Your task to perform on an android device: Is it going to rain tomorrow? Image 0: 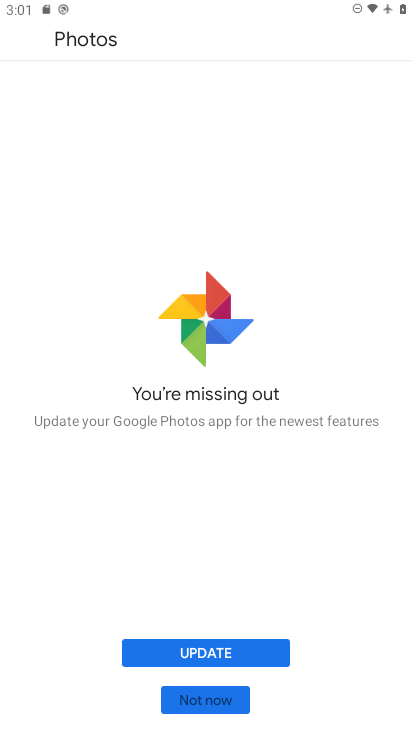
Step 0: press home button
Your task to perform on an android device: Is it going to rain tomorrow? Image 1: 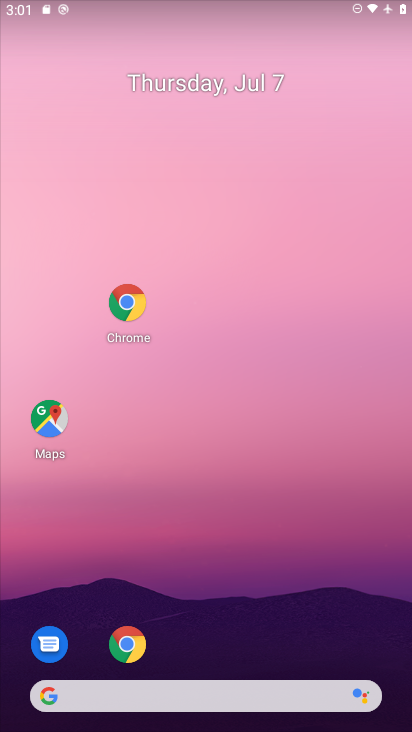
Step 1: drag from (277, 520) to (289, 3)
Your task to perform on an android device: Is it going to rain tomorrow? Image 2: 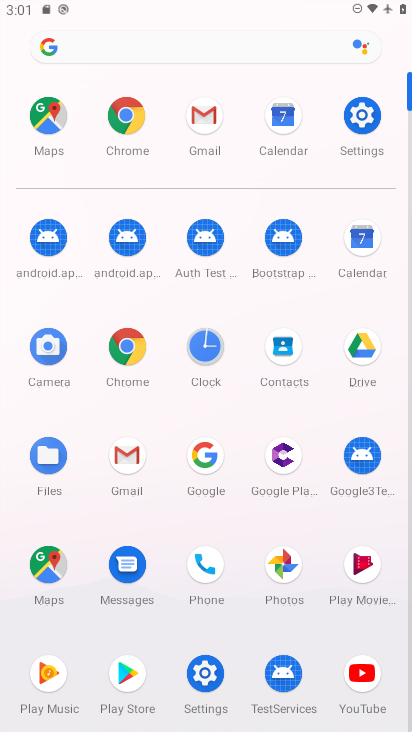
Step 2: click (125, 356)
Your task to perform on an android device: Is it going to rain tomorrow? Image 3: 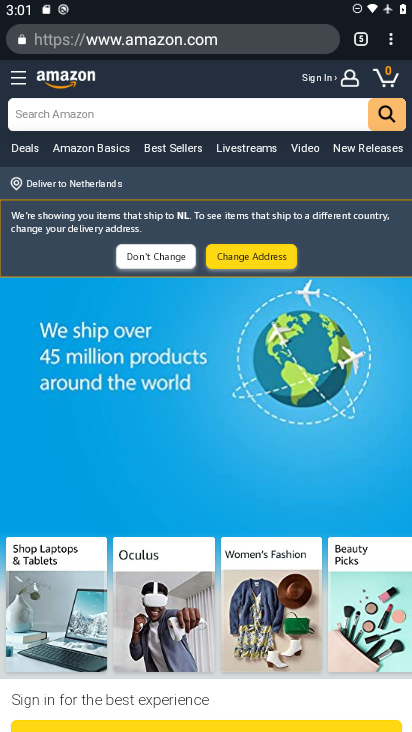
Step 3: click (363, 41)
Your task to perform on an android device: Is it going to rain tomorrow? Image 4: 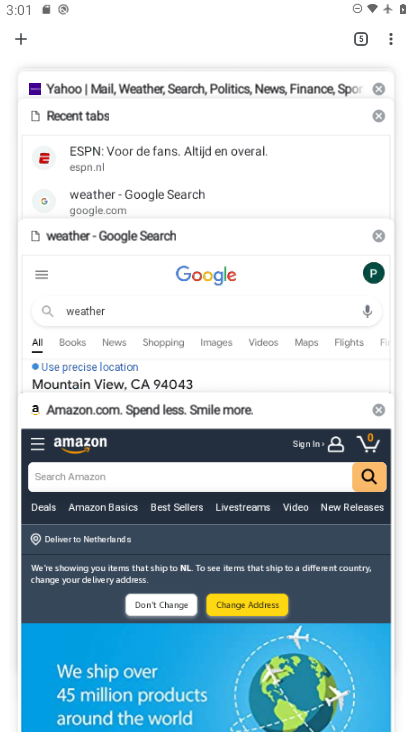
Step 4: click (25, 45)
Your task to perform on an android device: Is it going to rain tomorrow? Image 5: 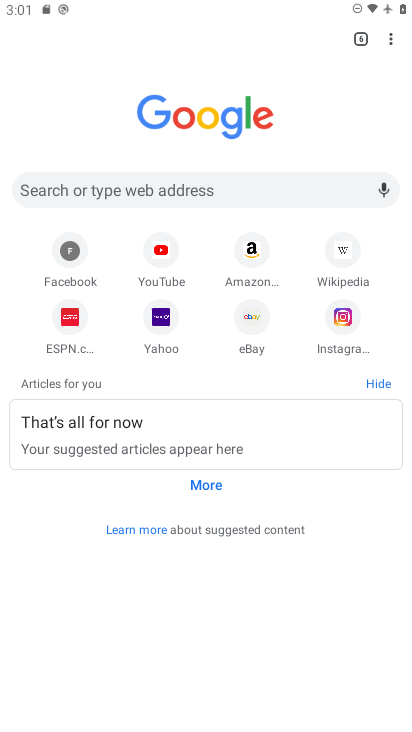
Step 5: click (365, 44)
Your task to perform on an android device: Is it going to rain tomorrow? Image 6: 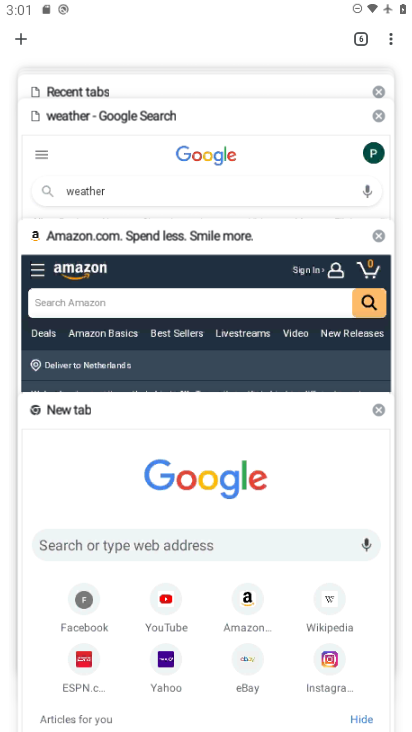
Step 6: click (140, 141)
Your task to perform on an android device: Is it going to rain tomorrow? Image 7: 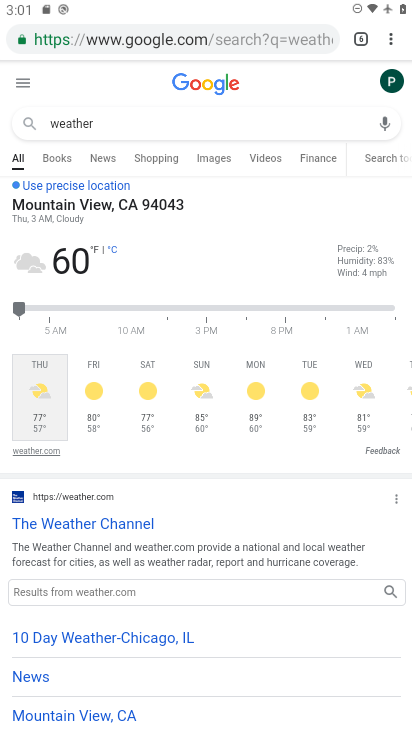
Step 7: click (88, 380)
Your task to perform on an android device: Is it going to rain tomorrow? Image 8: 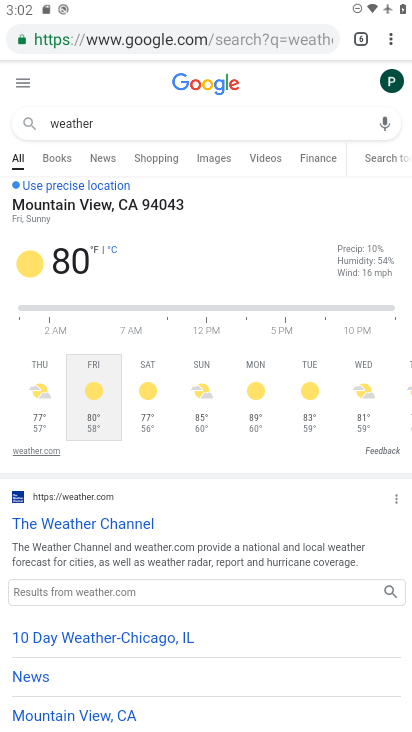
Step 8: task complete